Your task to perform on an android device: Open ESPN.com Image 0: 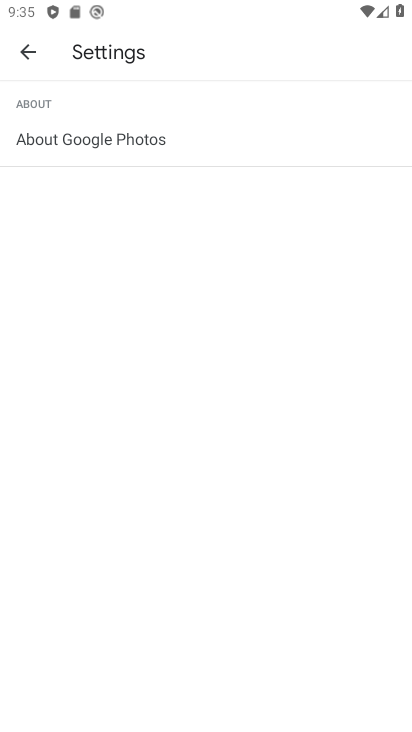
Step 0: press home button
Your task to perform on an android device: Open ESPN.com Image 1: 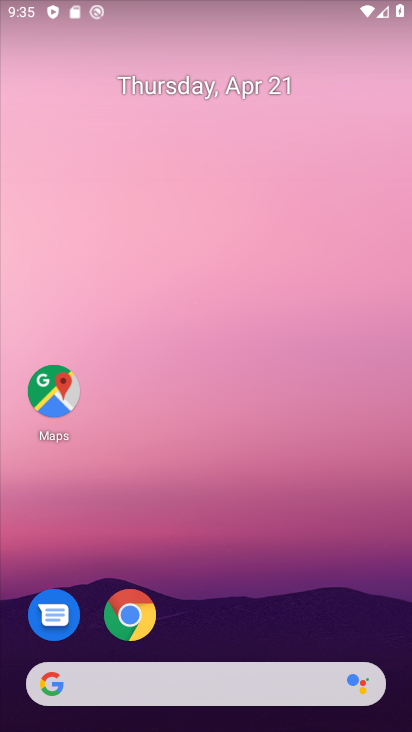
Step 1: click (128, 622)
Your task to perform on an android device: Open ESPN.com Image 2: 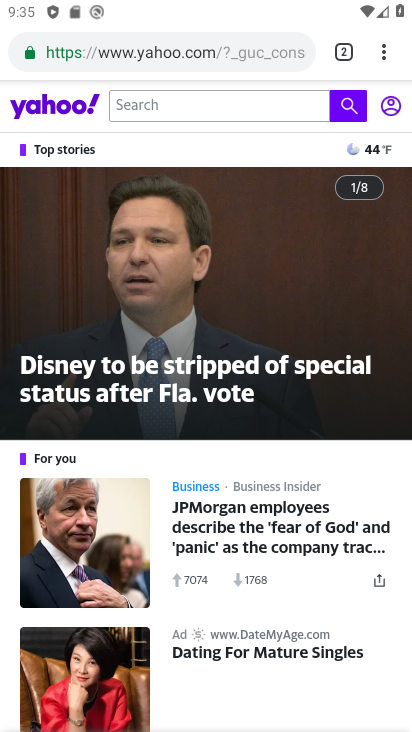
Step 2: click (382, 56)
Your task to perform on an android device: Open ESPN.com Image 3: 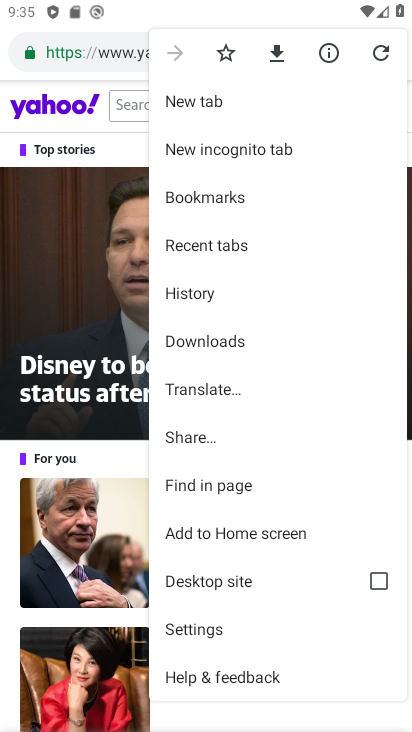
Step 3: click (199, 102)
Your task to perform on an android device: Open ESPN.com Image 4: 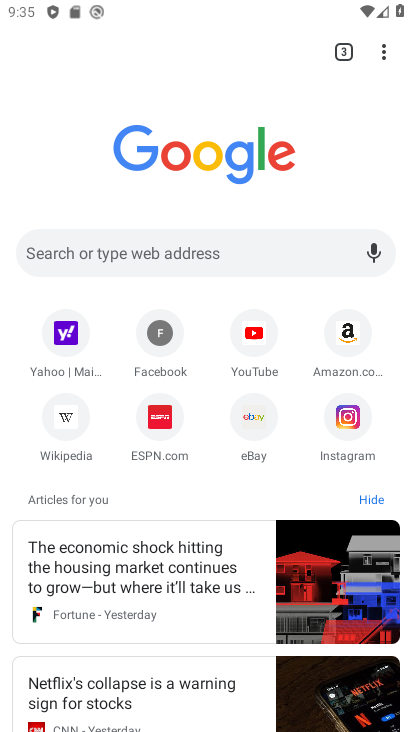
Step 4: click (161, 422)
Your task to perform on an android device: Open ESPN.com Image 5: 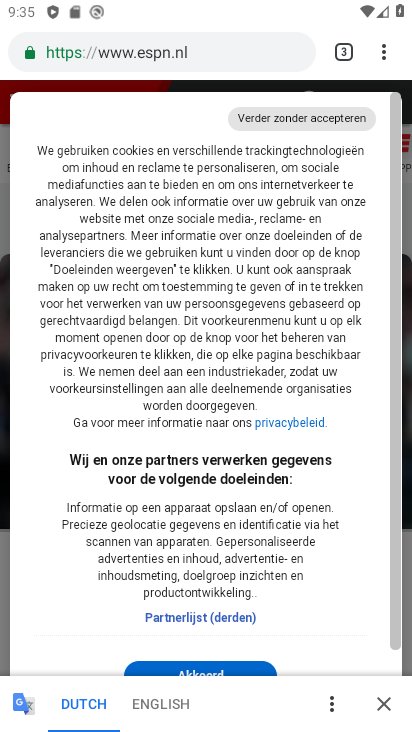
Step 5: task complete